Your task to perform on an android device: turn notification dots off Image 0: 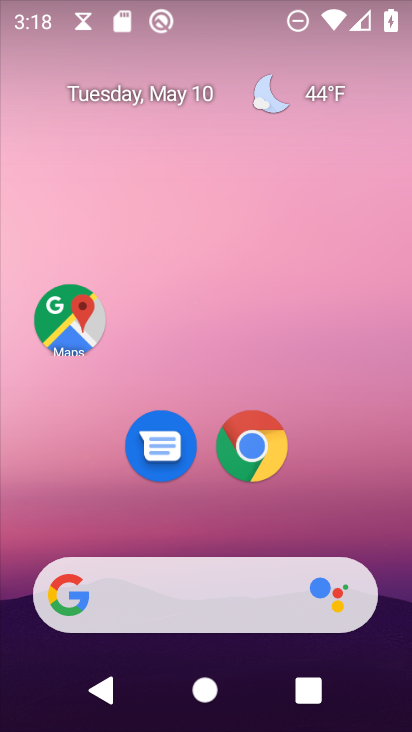
Step 0: drag from (360, 467) to (387, 109)
Your task to perform on an android device: turn notification dots off Image 1: 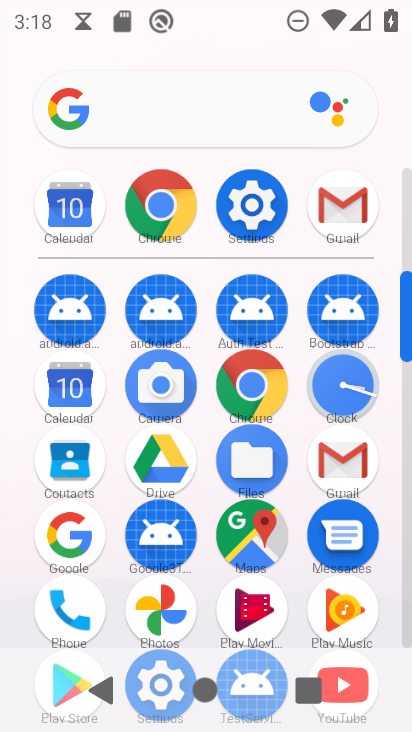
Step 1: click (281, 215)
Your task to perform on an android device: turn notification dots off Image 2: 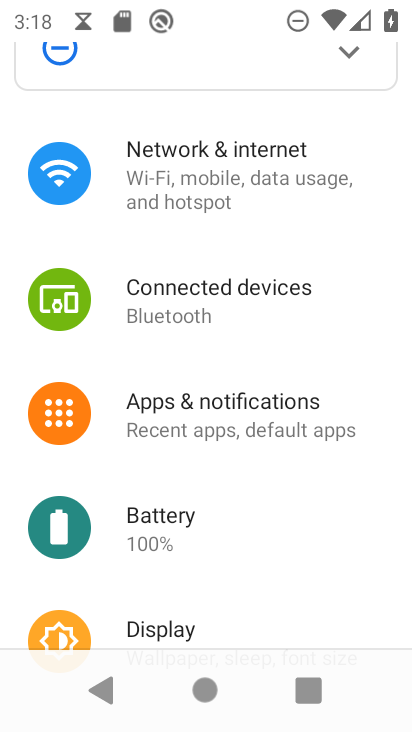
Step 2: click (225, 410)
Your task to perform on an android device: turn notification dots off Image 3: 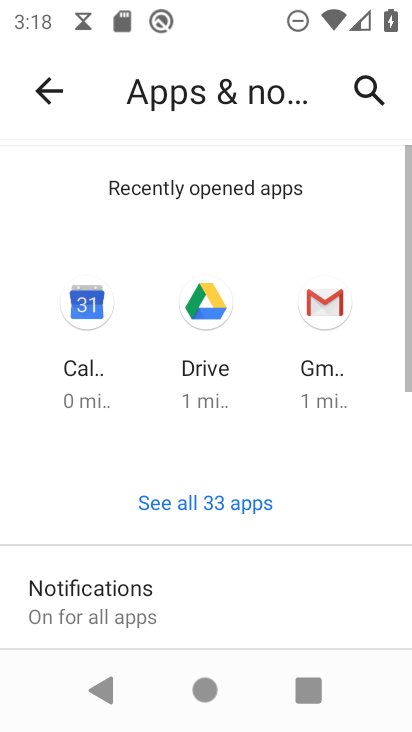
Step 3: drag from (189, 594) to (216, 151)
Your task to perform on an android device: turn notification dots off Image 4: 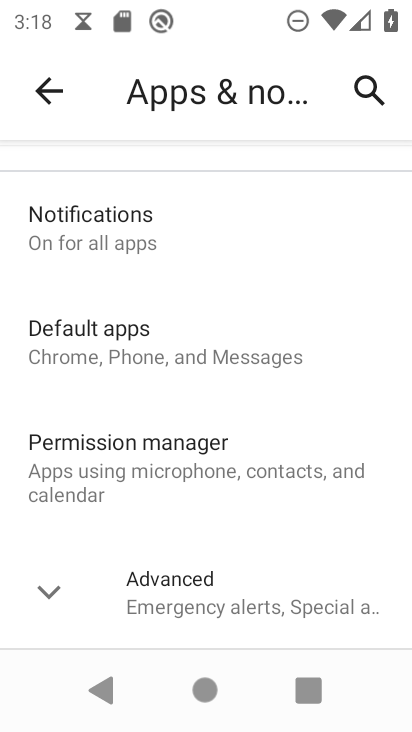
Step 4: click (166, 587)
Your task to perform on an android device: turn notification dots off Image 5: 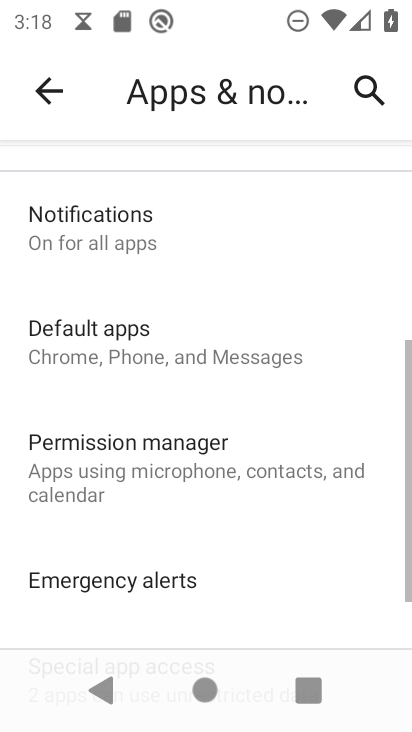
Step 5: drag from (184, 604) to (206, 209)
Your task to perform on an android device: turn notification dots off Image 6: 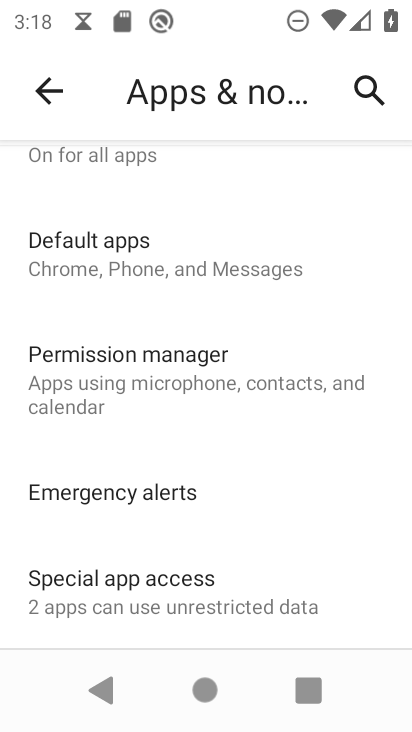
Step 6: drag from (79, 195) to (118, 507)
Your task to perform on an android device: turn notification dots off Image 7: 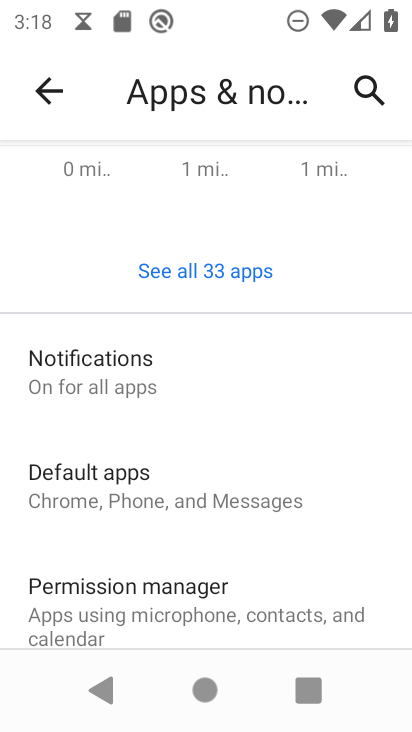
Step 7: click (89, 336)
Your task to perform on an android device: turn notification dots off Image 8: 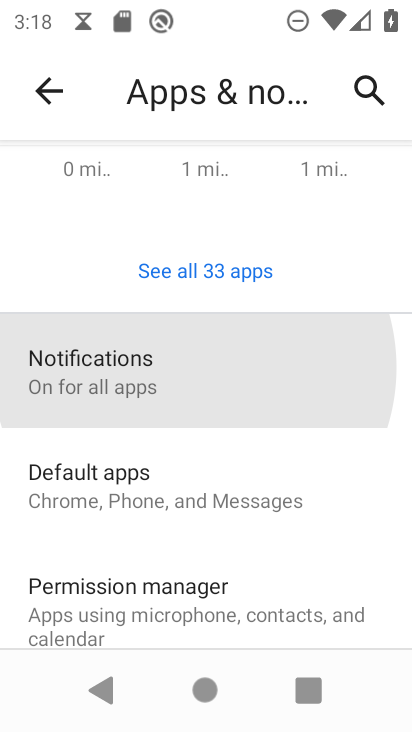
Step 8: click (73, 358)
Your task to perform on an android device: turn notification dots off Image 9: 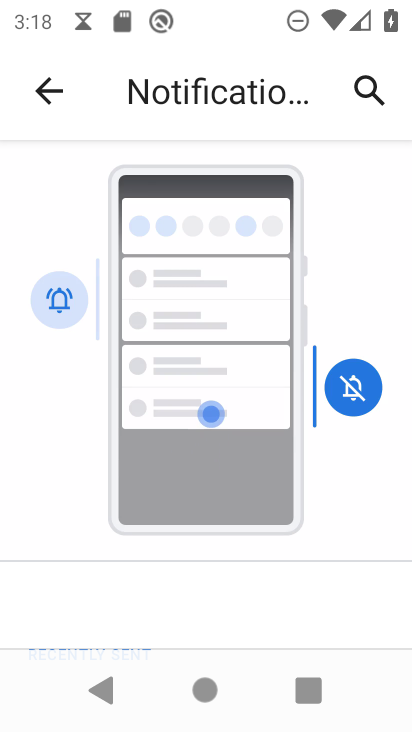
Step 9: drag from (147, 527) to (100, 187)
Your task to perform on an android device: turn notification dots off Image 10: 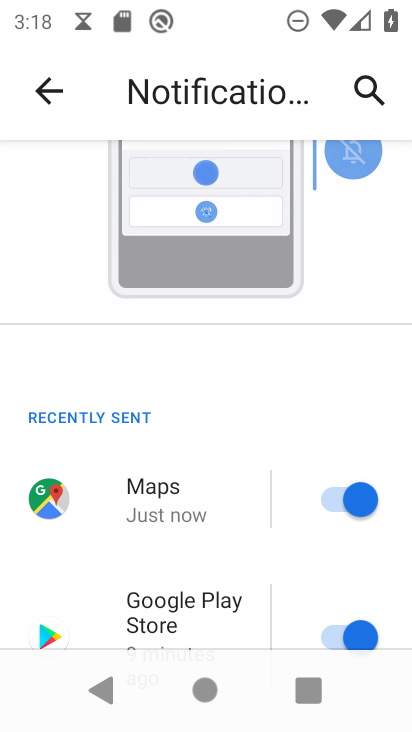
Step 10: drag from (138, 540) to (111, 167)
Your task to perform on an android device: turn notification dots off Image 11: 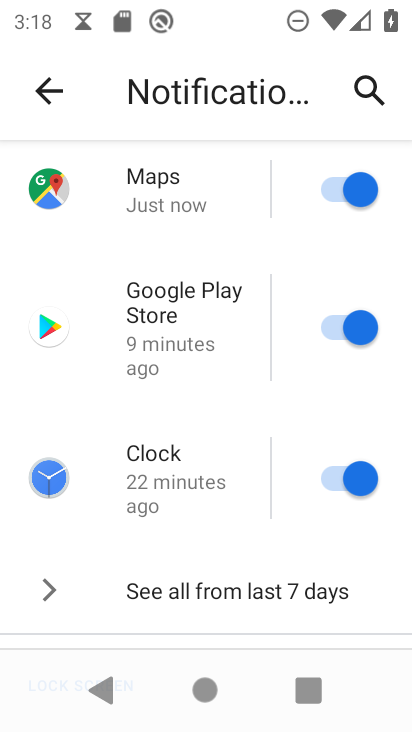
Step 11: drag from (132, 470) to (155, 207)
Your task to perform on an android device: turn notification dots off Image 12: 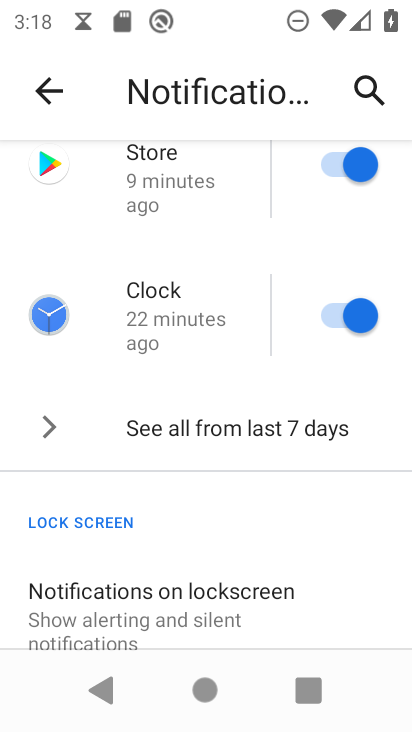
Step 12: drag from (178, 591) to (152, 220)
Your task to perform on an android device: turn notification dots off Image 13: 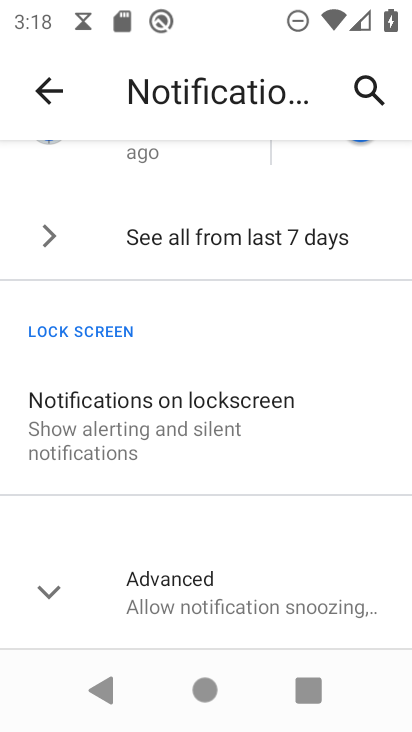
Step 13: click (202, 586)
Your task to perform on an android device: turn notification dots off Image 14: 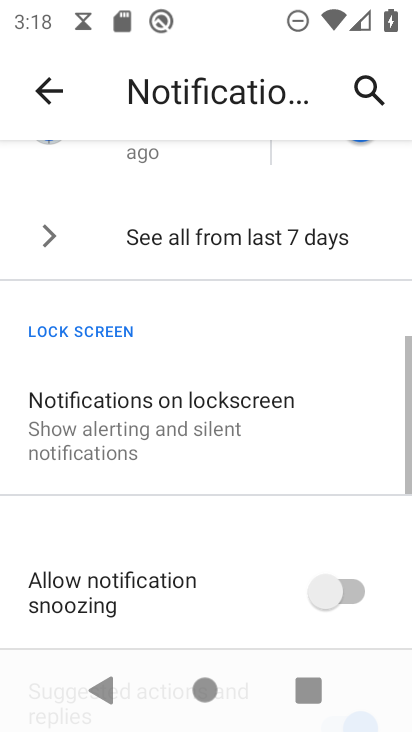
Step 14: drag from (202, 586) to (147, 231)
Your task to perform on an android device: turn notification dots off Image 15: 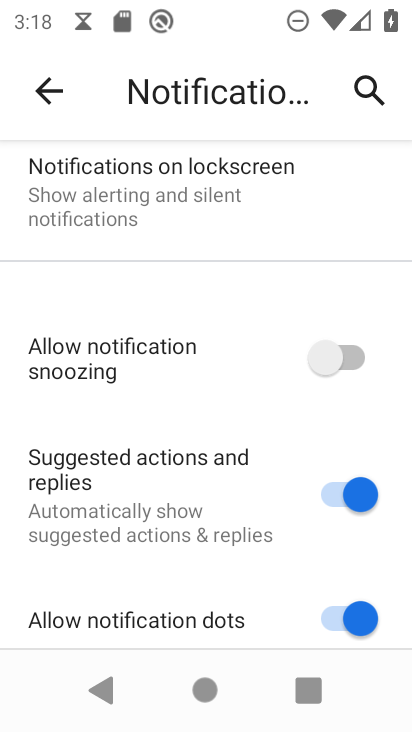
Step 15: drag from (196, 571) to (166, 287)
Your task to perform on an android device: turn notification dots off Image 16: 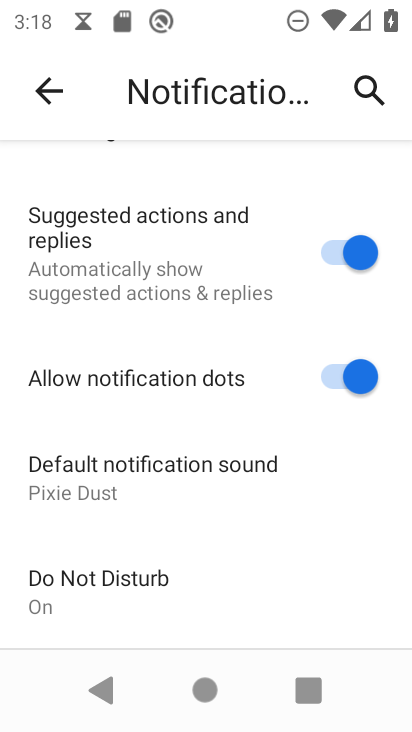
Step 16: click (339, 376)
Your task to perform on an android device: turn notification dots off Image 17: 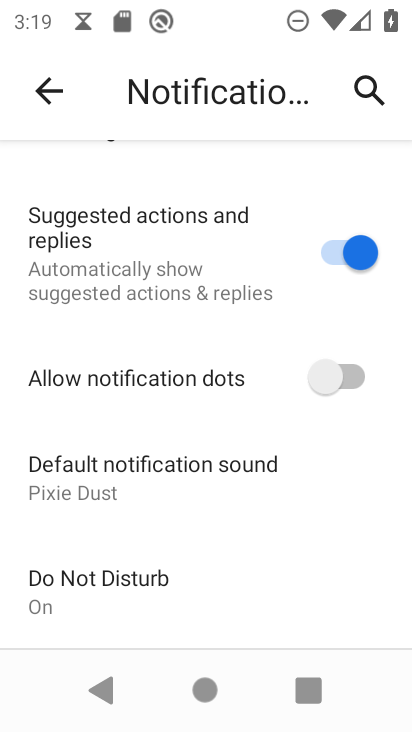
Step 17: task complete